Your task to perform on an android device: delete the emails in spam in the gmail app Image 0: 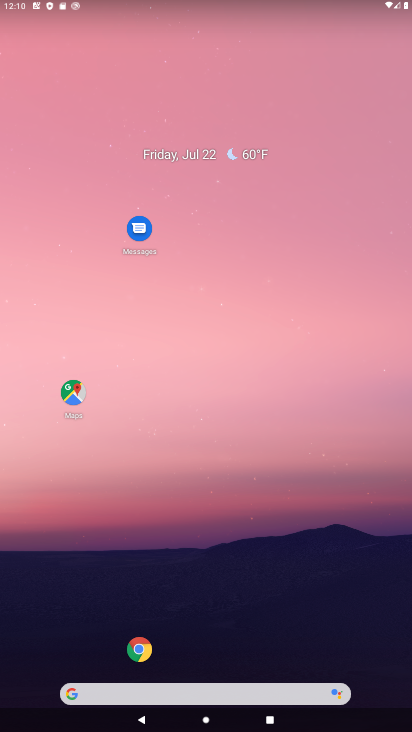
Step 0: drag from (48, 661) to (143, 360)
Your task to perform on an android device: delete the emails in spam in the gmail app Image 1: 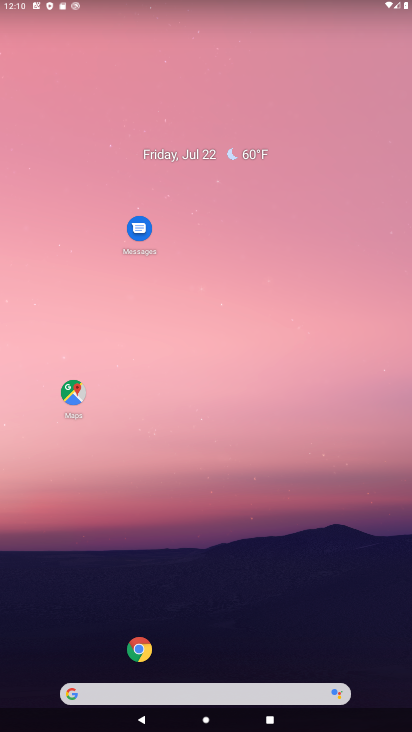
Step 1: drag from (19, 681) to (180, 177)
Your task to perform on an android device: delete the emails in spam in the gmail app Image 2: 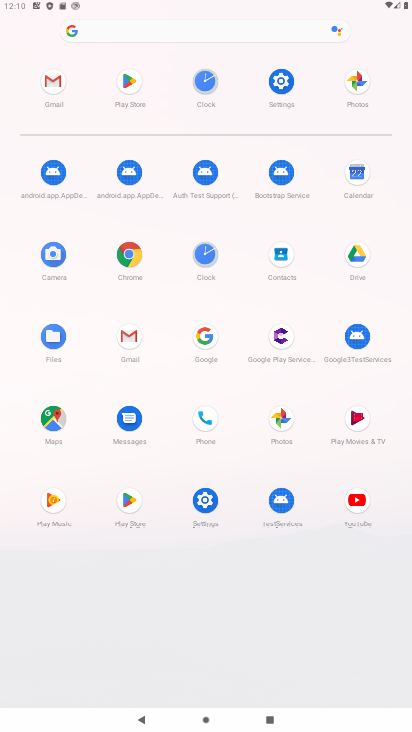
Step 2: click (137, 338)
Your task to perform on an android device: delete the emails in spam in the gmail app Image 3: 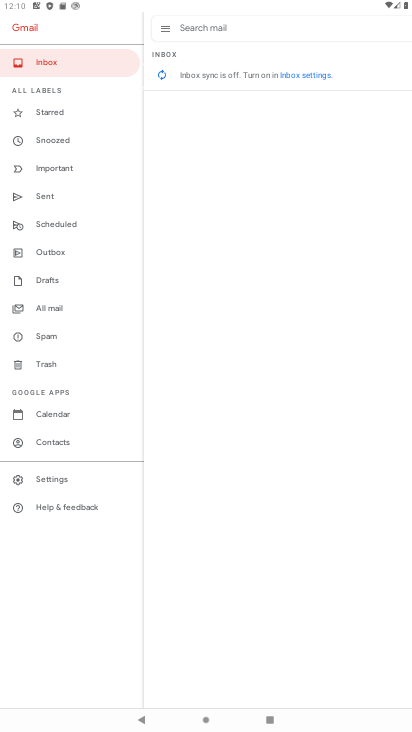
Step 3: click (50, 334)
Your task to perform on an android device: delete the emails in spam in the gmail app Image 4: 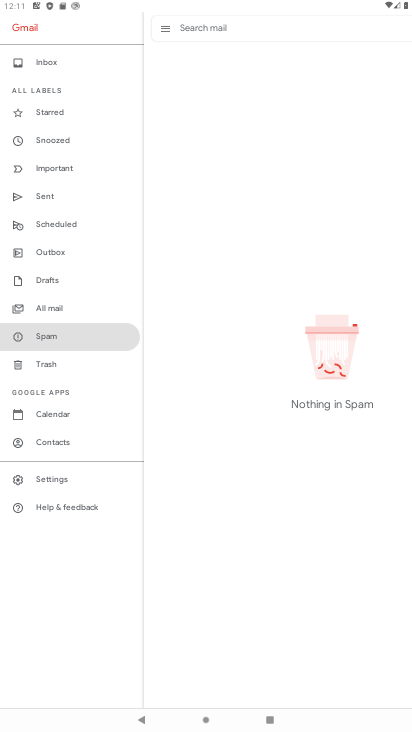
Step 4: task complete